Your task to perform on an android device: Is it going to rain this weekend? Image 0: 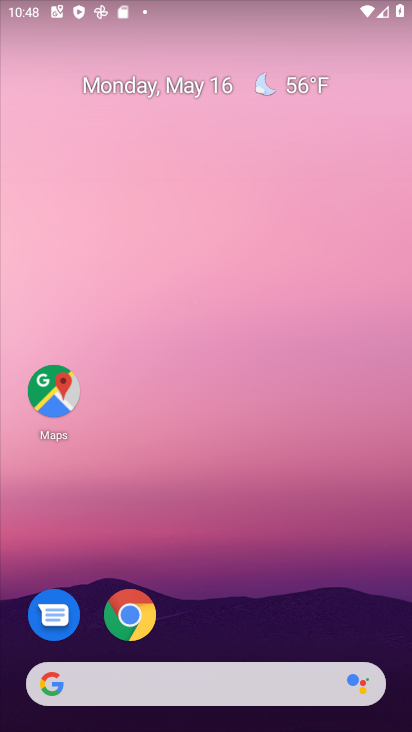
Step 0: drag from (302, 712) to (250, 211)
Your task to perform on an android device: Is it going to rain this weekend? Image 1: 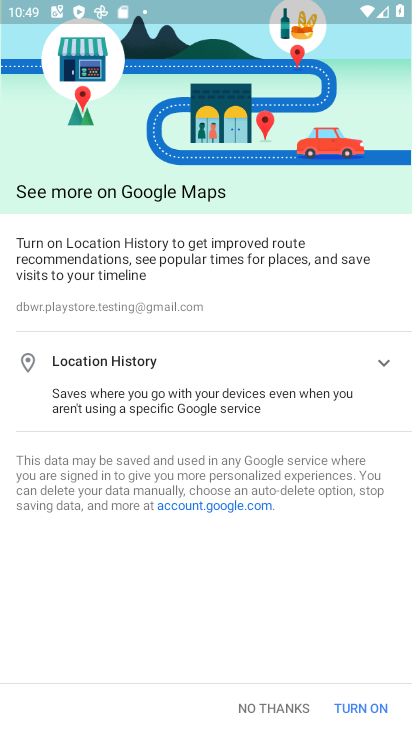
Step 1: click (287, 707)
Your task to perform on an android device: Is it going to rain this weekend? Image 2: 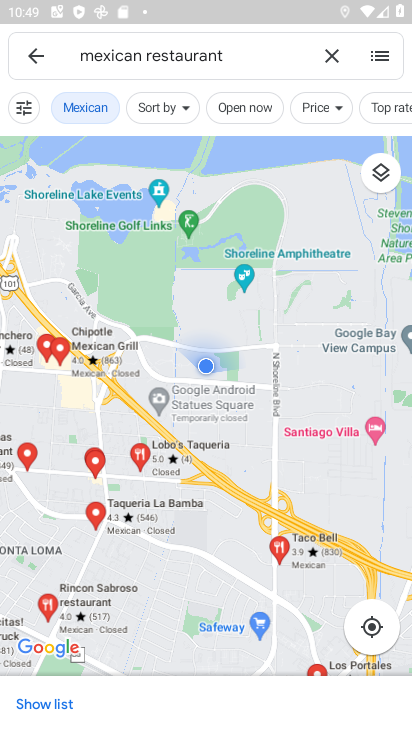
Step 2: press home button
Your task to perform on an android device: Is it going to rain this weekend? Image 3: 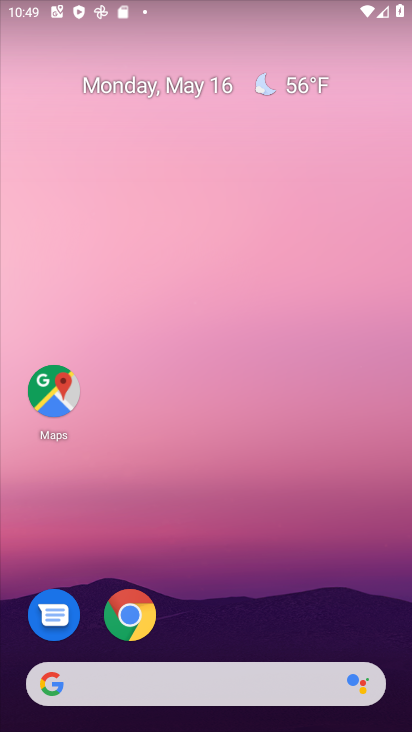
Step 3: drag from (268, 710) to (297, 426)
Your task to perform on an android device: Is it going to rain this weekend? Image 4: 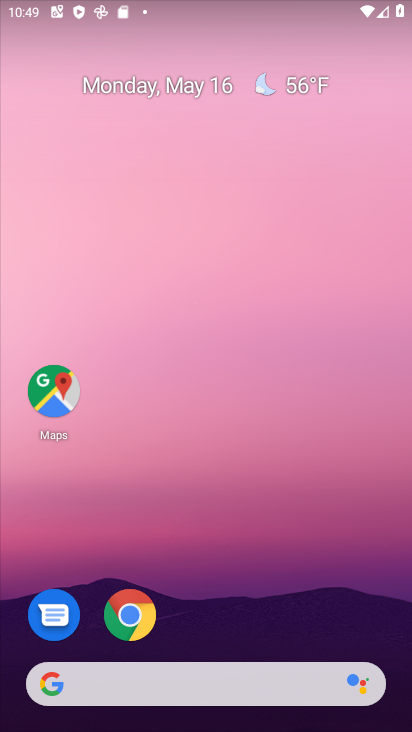
Step 4: drag from (245, 712) to (312, 291)
Your task to perform on an android device: Is it going to rain this weekend? Image 5: 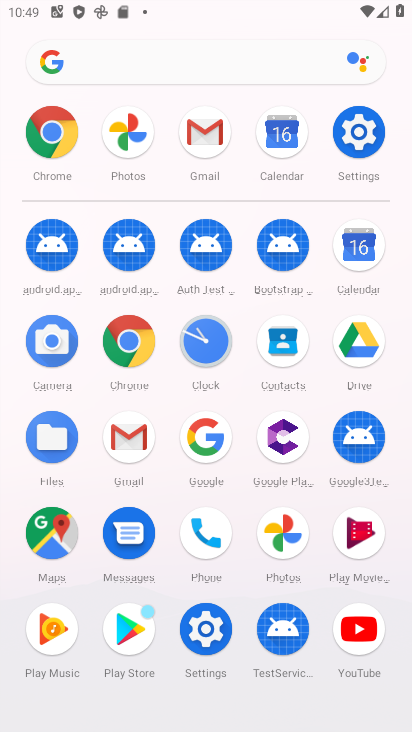
Step 5: click (164, 64)
Your task to perform on an android device: Is it going to rain this weekend? Image 6: 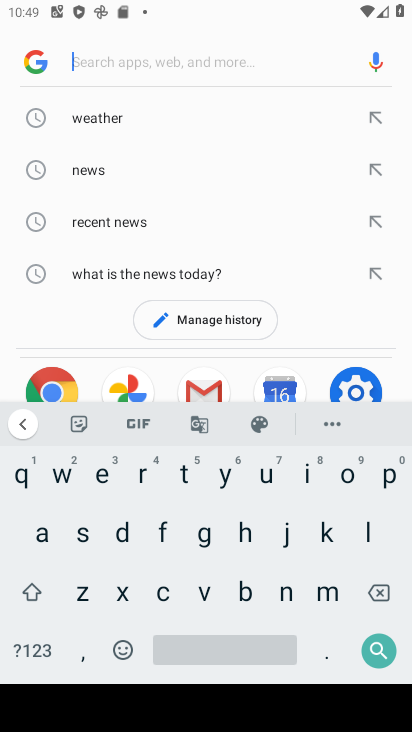
Step 6: click (117, 119)
Your task to perform on an android device: Is it going to rain this weekend? Image 7: 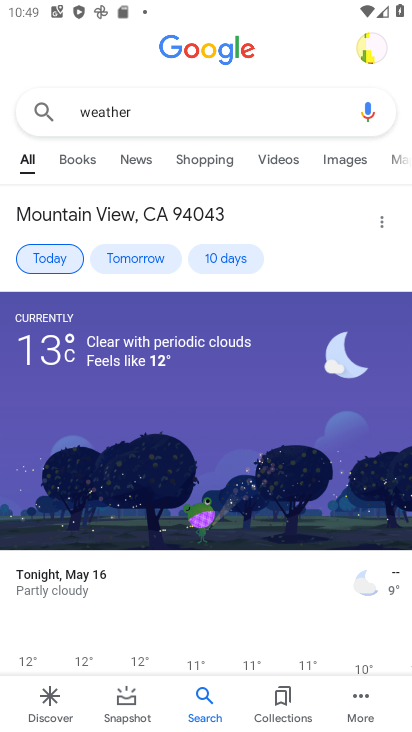
Step 7: click (213, 264)
Your task to perform on an android device: Is it going to rain this weekend? Image 8: 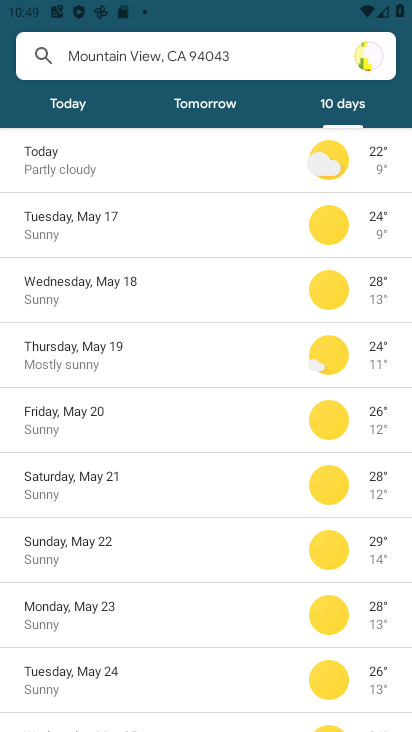
Step 8: task complete